Your task to perform on an android device: turn on airplane mode Image 0: 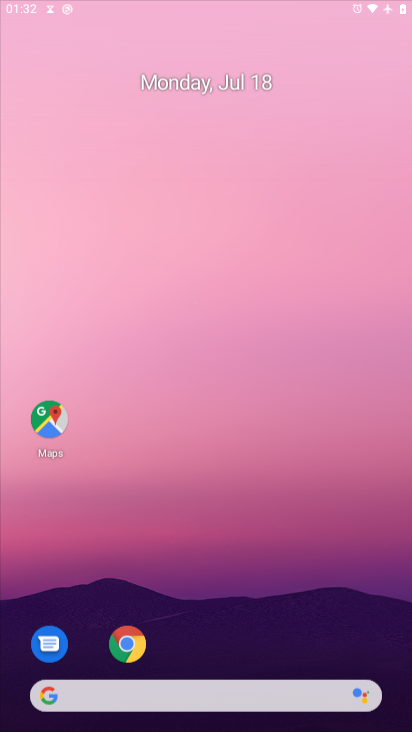
Step 0: press home button
Your task to perform on an android device: turn on airplane mode Image 1: 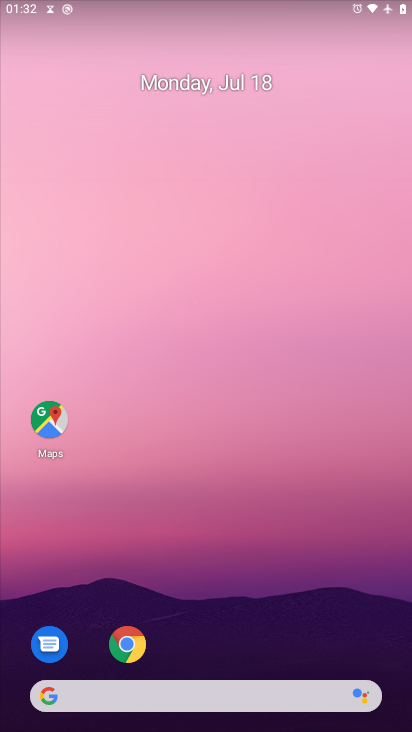
Step 1: task complete